Your task to perform on an android device: What's the weather today? Image 0: 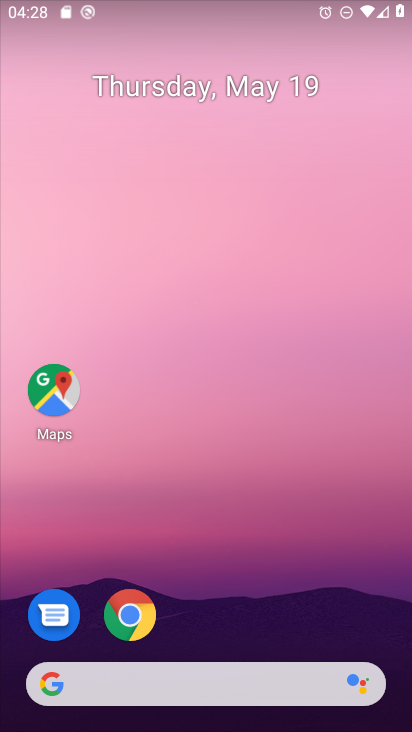
Step 0: drag from (283, 609) to (135, 22)
Your task to perform on an android device: What's the weather today? Image 1: 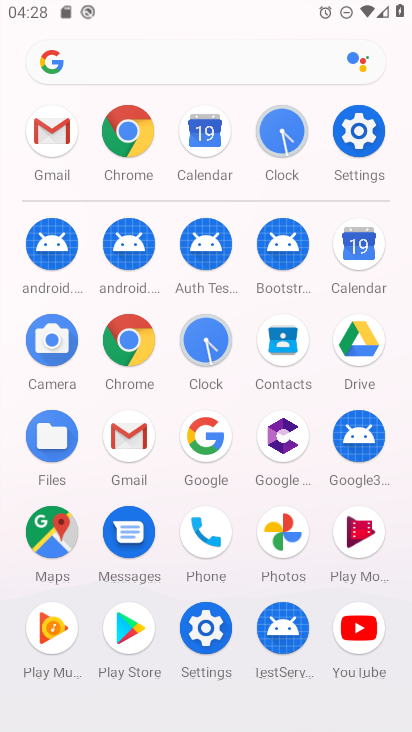
Step 1: click (142, 135)
Your task to perform on an android device: What's the weather today? Image 2: 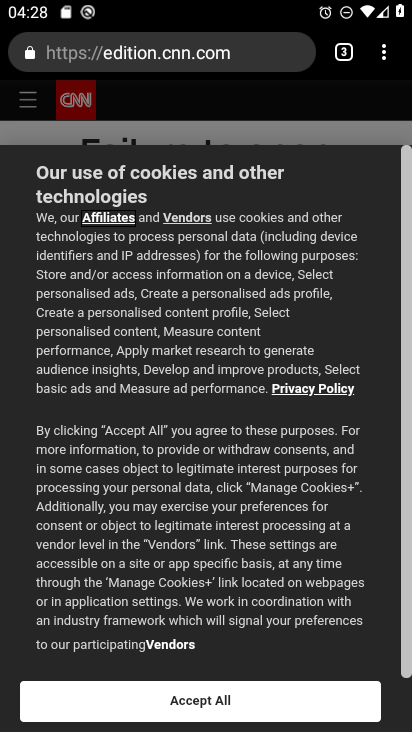
Step 2: click (244, 58)
Your task to perform on an android device: What's the weather today? Image 3: 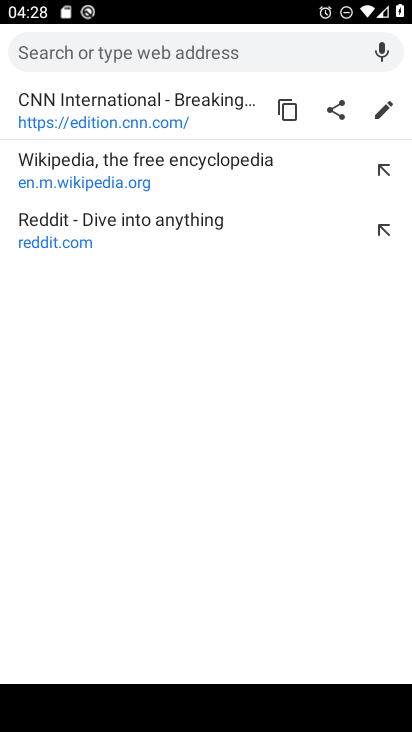
Step 3: type "What's the weather today?"
Your task to perform on an android device: What's the weather today? Image 4: 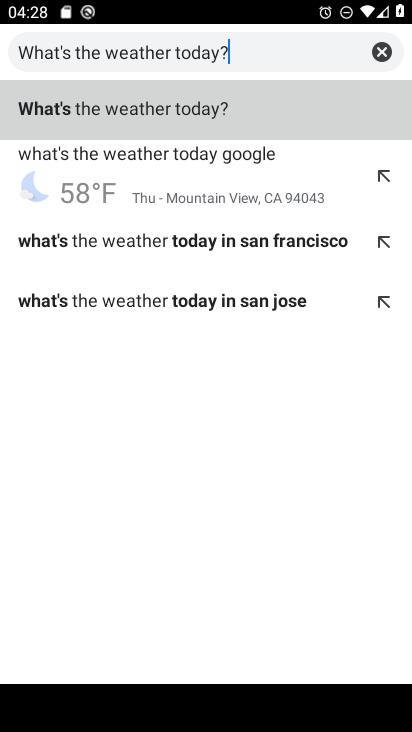
Step 4: click (205, 114)
Your task to perform on an android device: What's the weather today? Image 5: 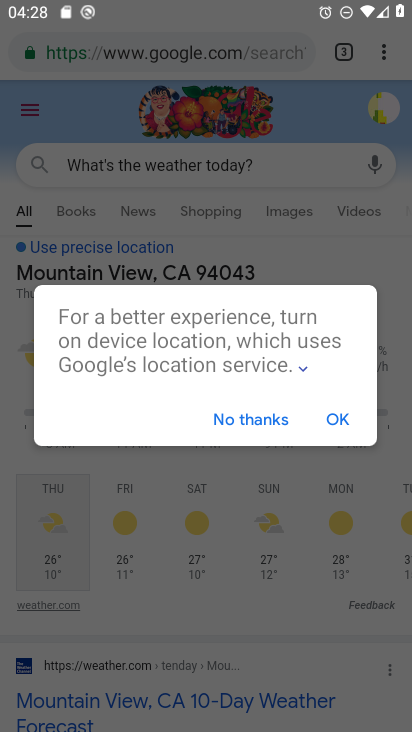
Step 5: task complete